Your task to perform on an android device: Open privacy settings Image 0: 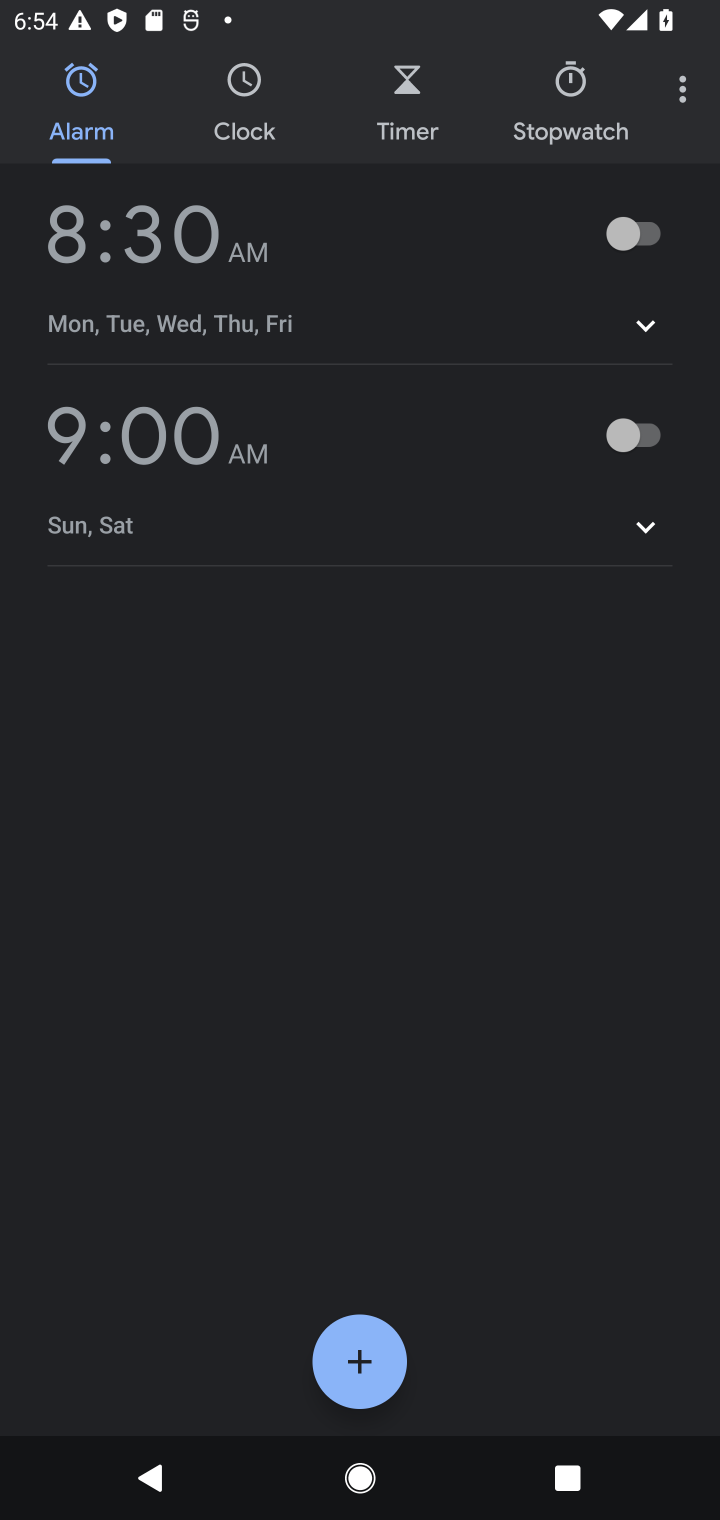
Step 0: press home button
Your task to perform on an android device: Open privacy settings Image 1: 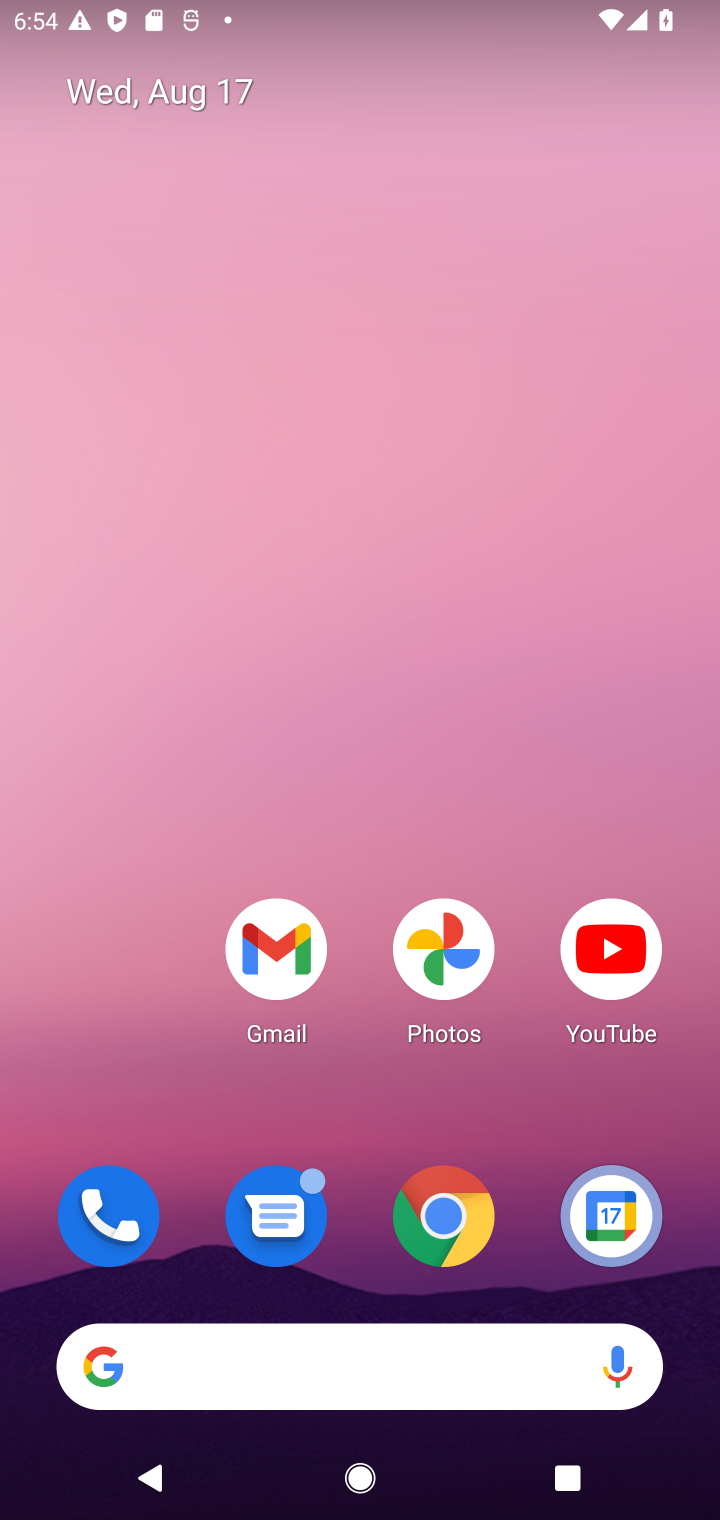
Step 1: drag from (618, 857) to (699, 268)
Your task to perform on an android device: Open privacy settings Image 2: 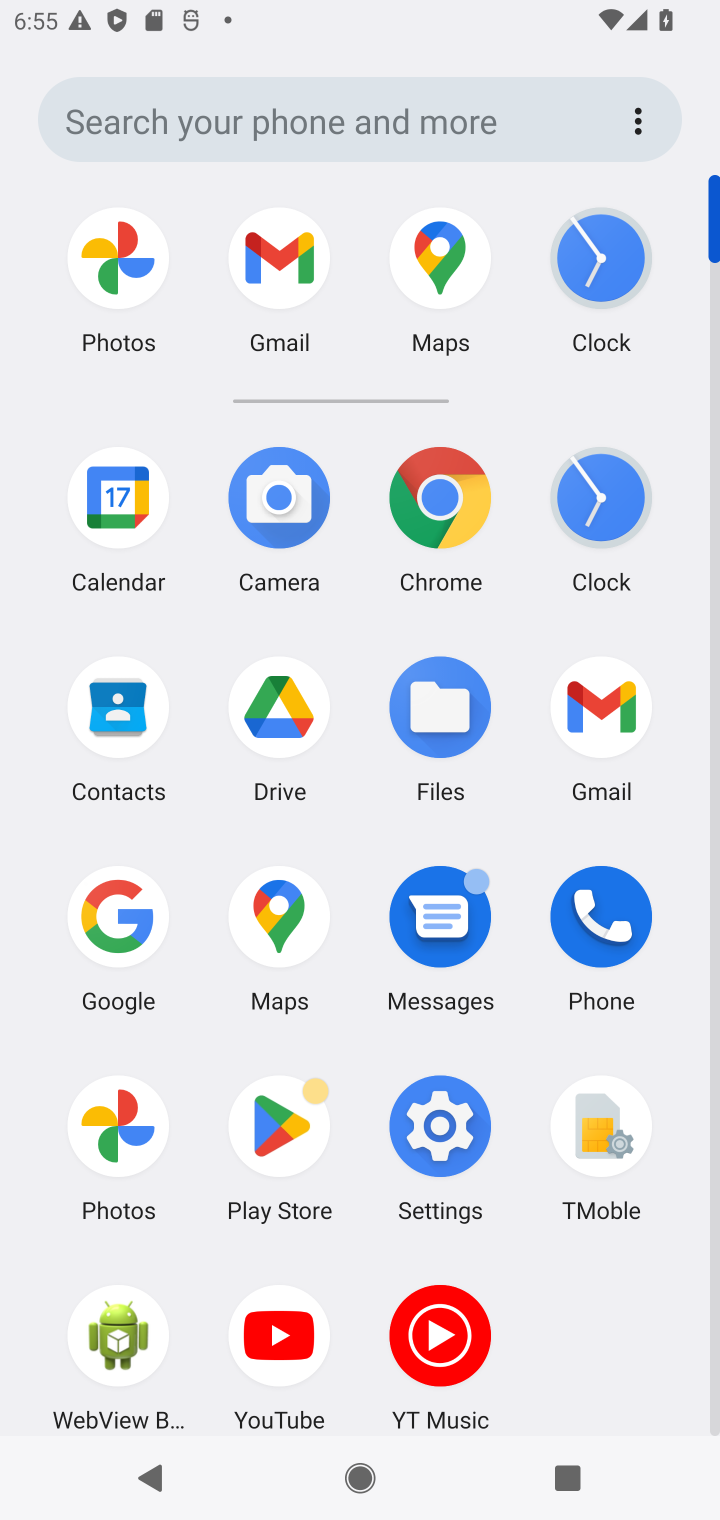
Step 2: click (442, 1088)
Your task to perform on an android device: Open privacy settings Image 3: 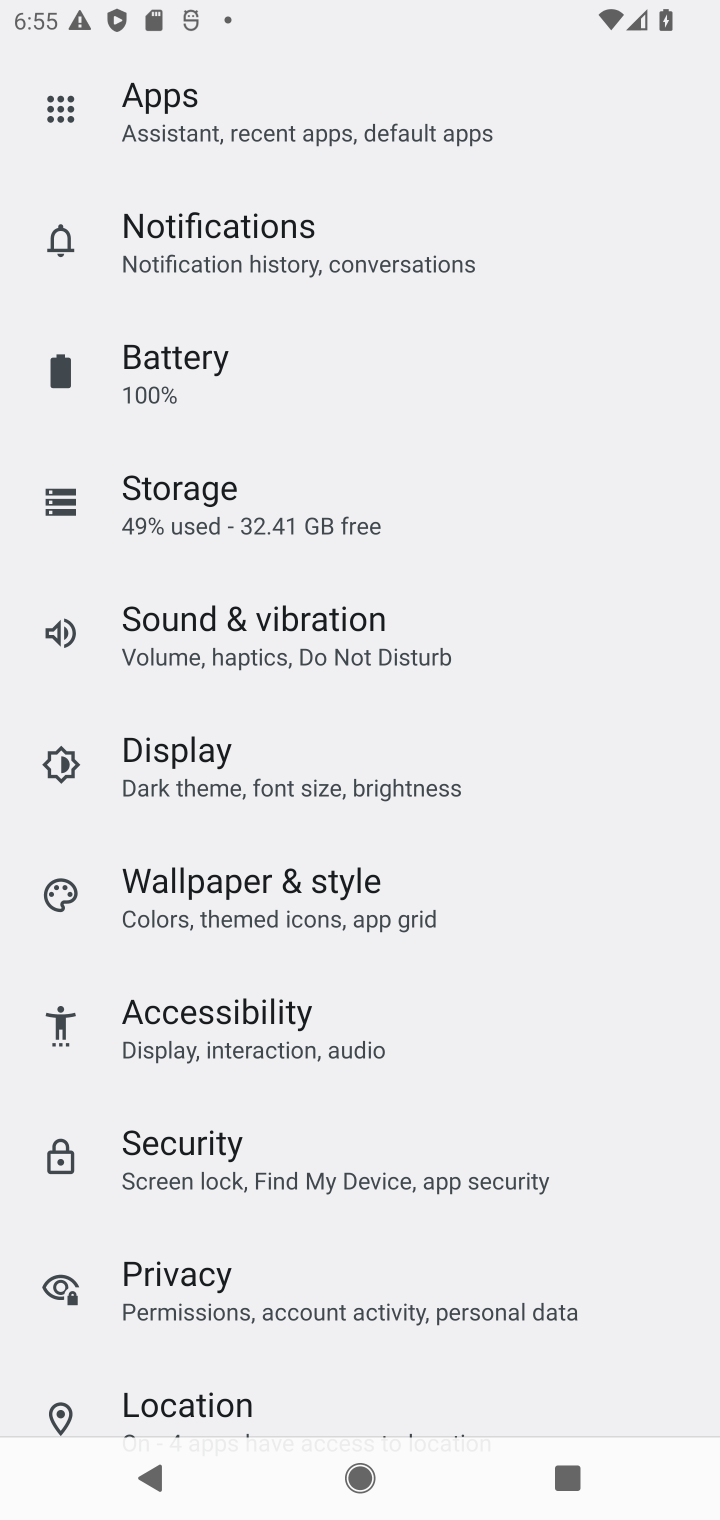
Step 3: drag from (257, 1230) to (228, 288)
Your task to perform on an android device: Open privacy settings Image 4: 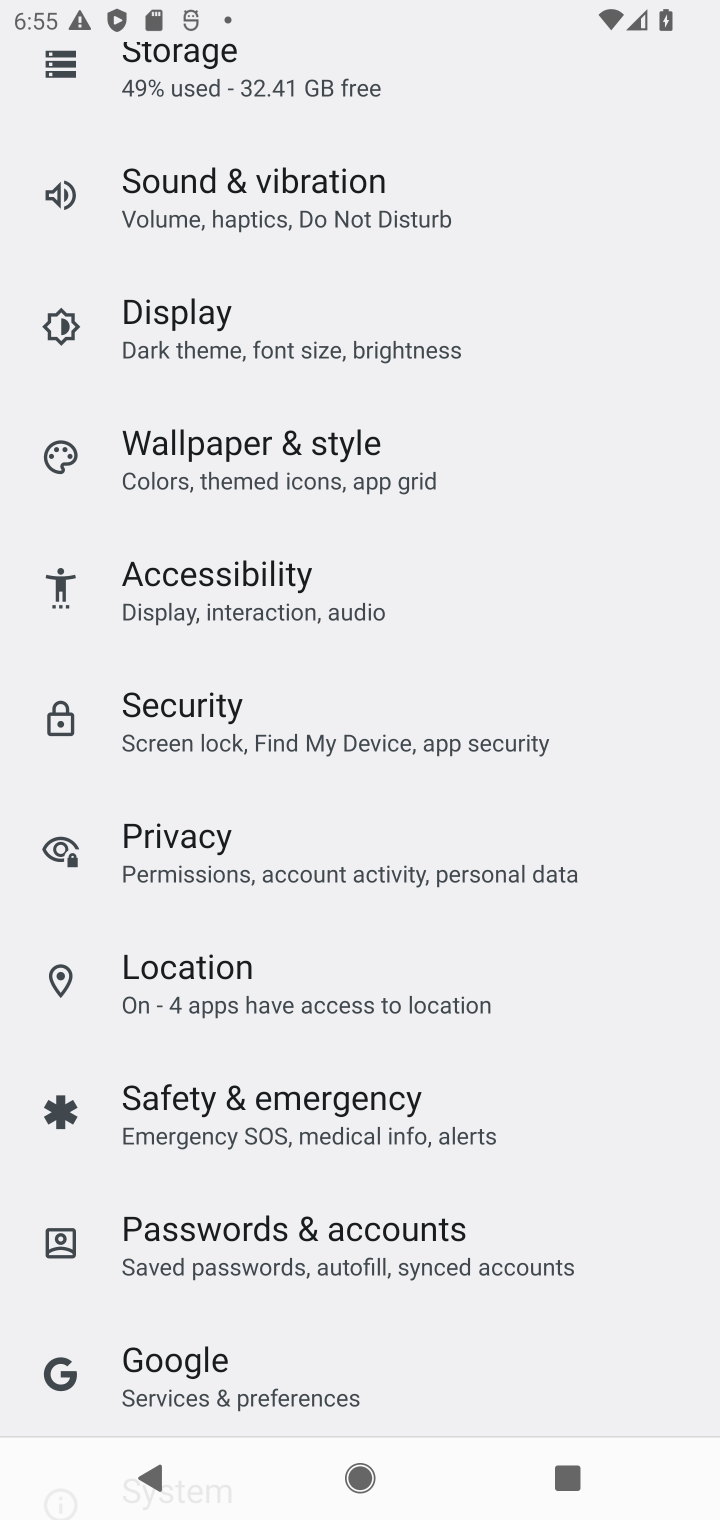
Step 4: click (167, 814)
Your task to perform on an android device: Open privacy settings Image 5: 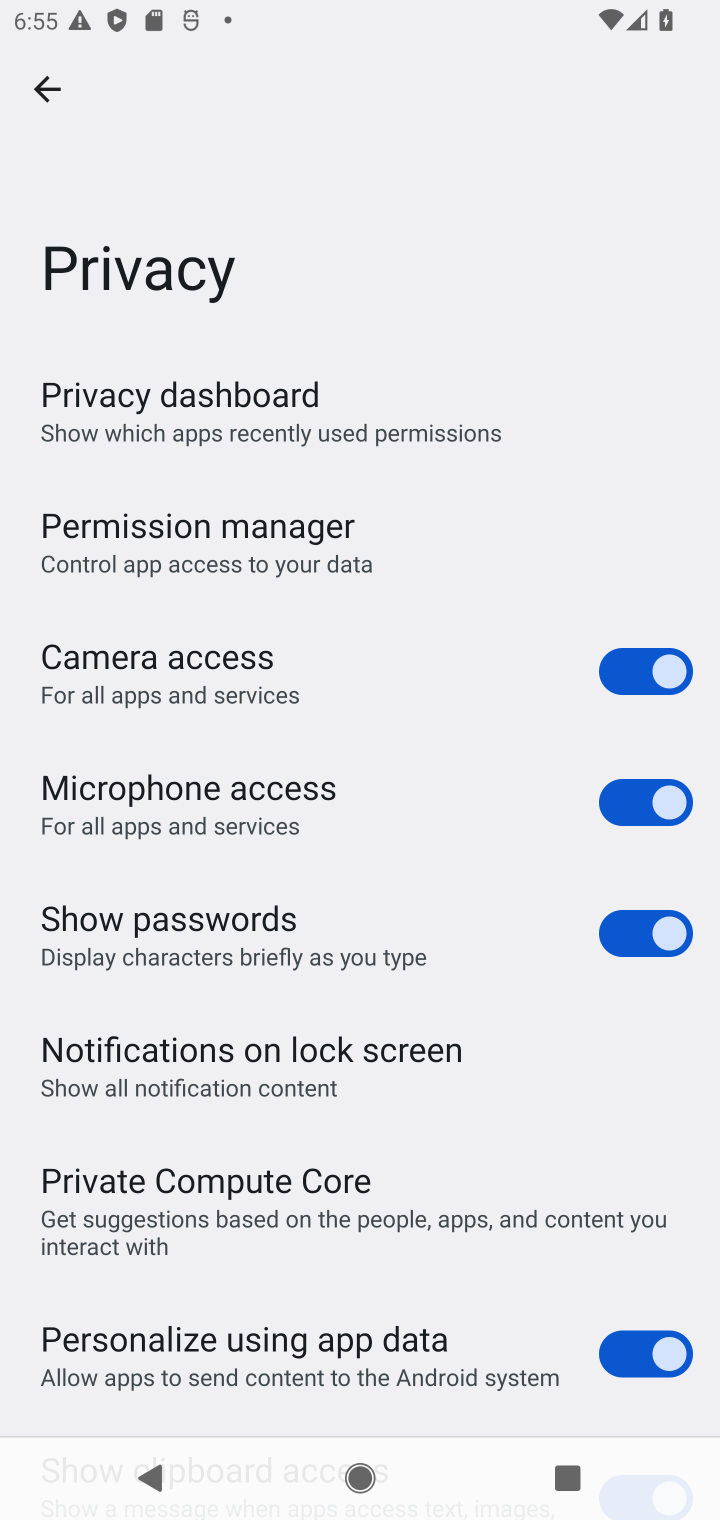
Step 5: task complete